Your task to perform on an android device: find which apps use the phone's location Image 0: 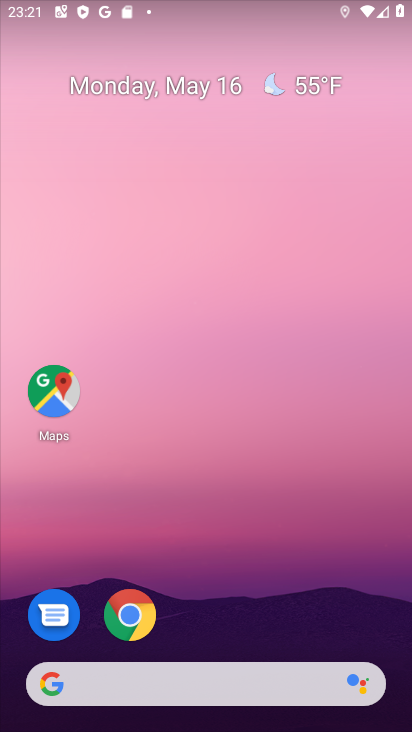
Step 0: drag from (205, 652) to (184, 88)
Your task to perform on an android device: find which apps use the phone's location Image 1: 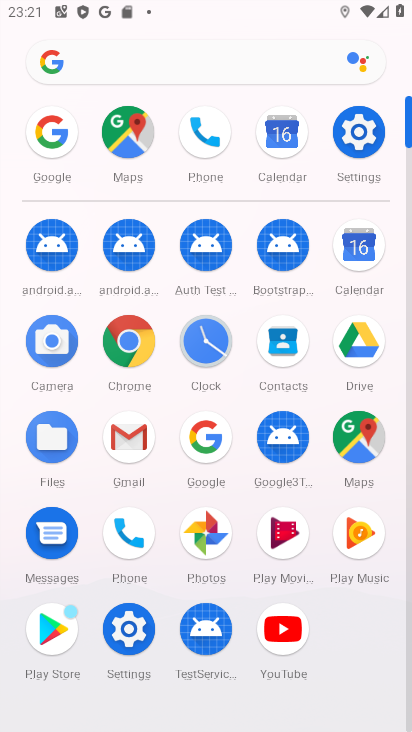
Step 1: click (369, 150)
Your task to perform on an android device: find which apps use the phone's location Image 2: 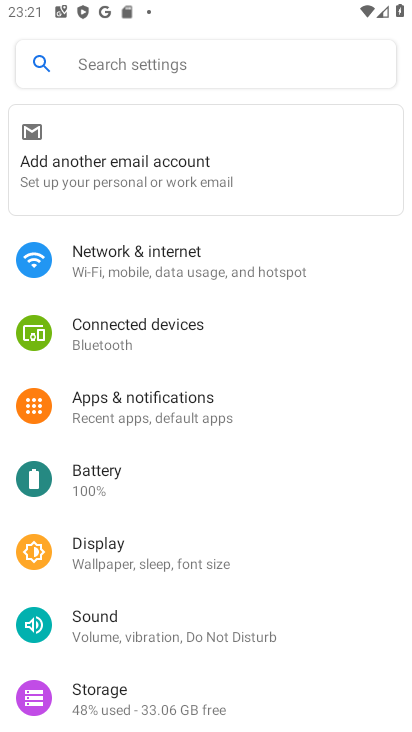
Step 2: drag from (153, 582) to (118, 335)
Your task to perform on an android device: find which apps use the phone's location Image 3: 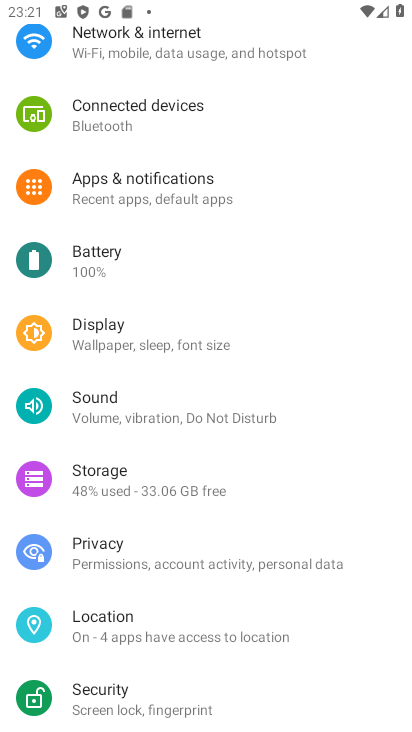
Step 3: click (114, 627)
Your task to perform on an android device: find which apps use the phone's location Image 4: 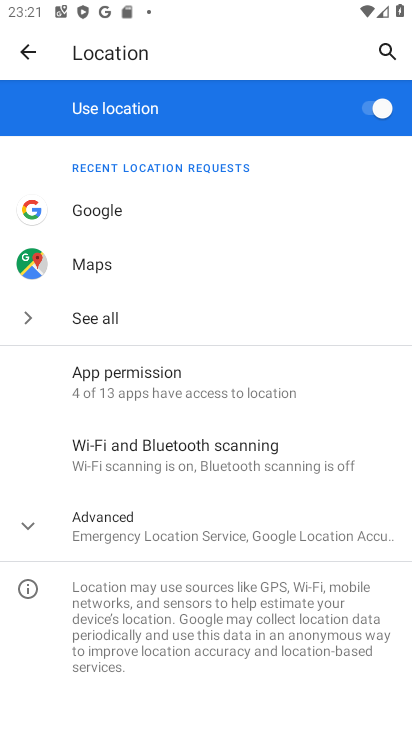
Step 4: click (132, 398)
Your task to perform on an android device: find which apps use the phone's location Image 5: 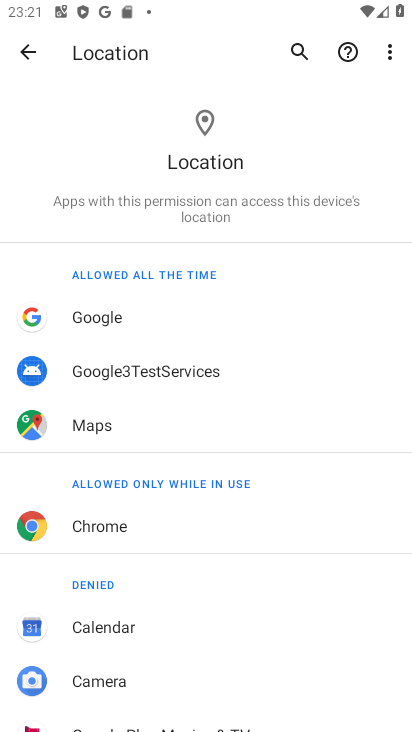
Step 5: task complete